Your task to perform on an android device: Turn on the flashlight Image 0: 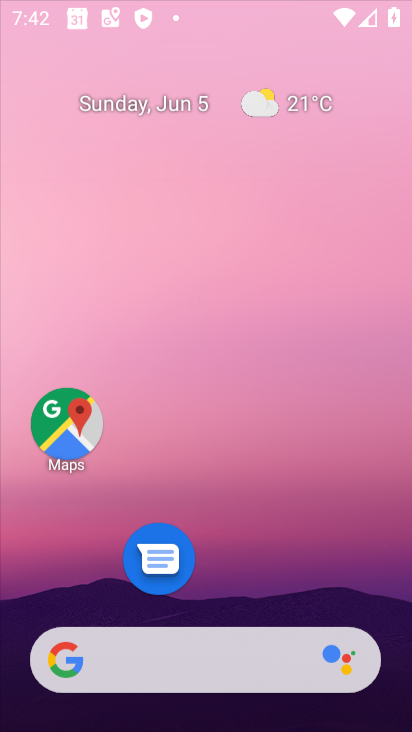
Step 0: click (157, 117)
Your task to perform on an android device: Turn on the flashlight Image 1: 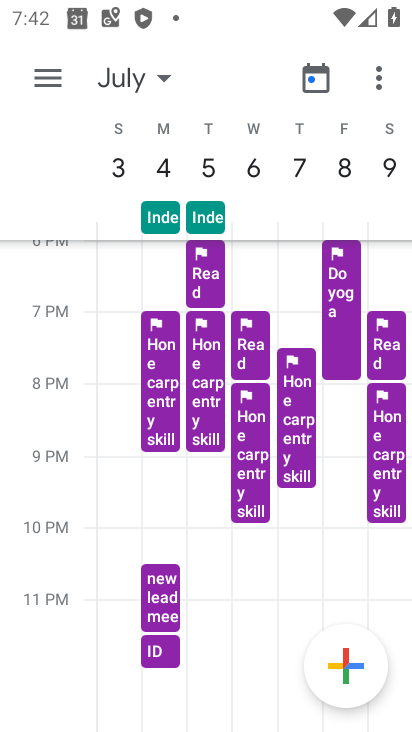
Step 1: press home button
Your task to perform on an android device: Turn on the flashlight Image 2: 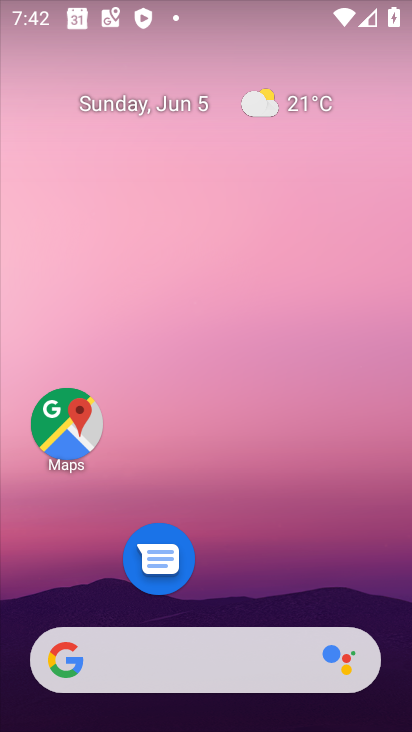
Step 2: drag from (232, 639) to (184, 0)
Your task to perform on an android device: Turn on the flashlight Image 3: 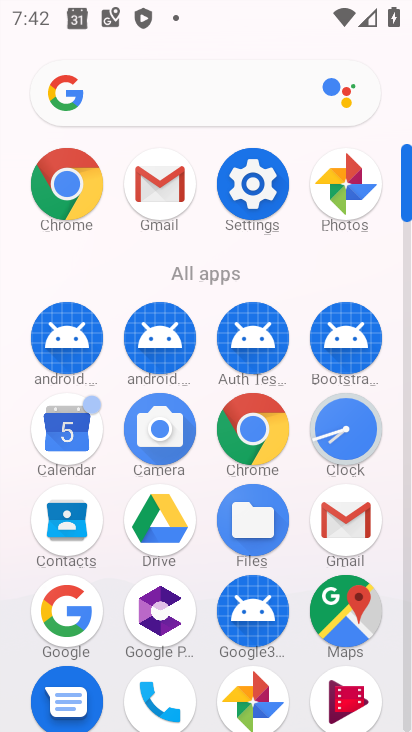
Step 3: click (233, 185)
Your task to perform on an android device: Turn on the flashlight Image 4: 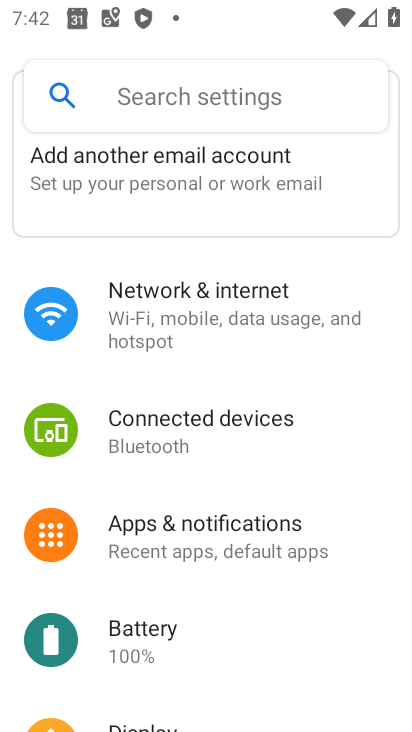
Step 4: task complete